Your task to perform on an android device: add a contact in the contacts app Image 0: 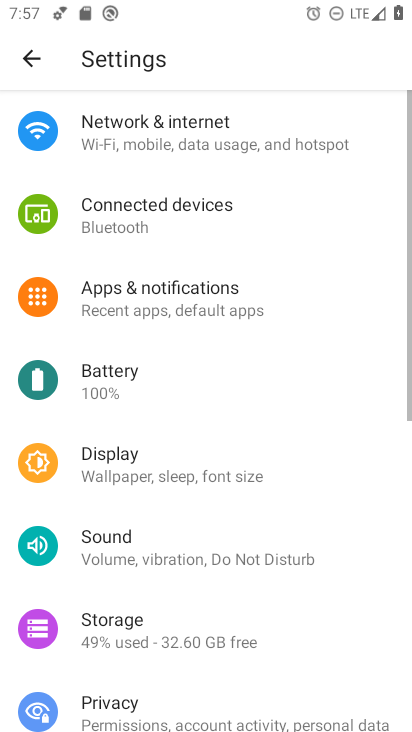
Step 0: press home button
Your task to perform on an android device: add a contact in the contacts app Image 1: 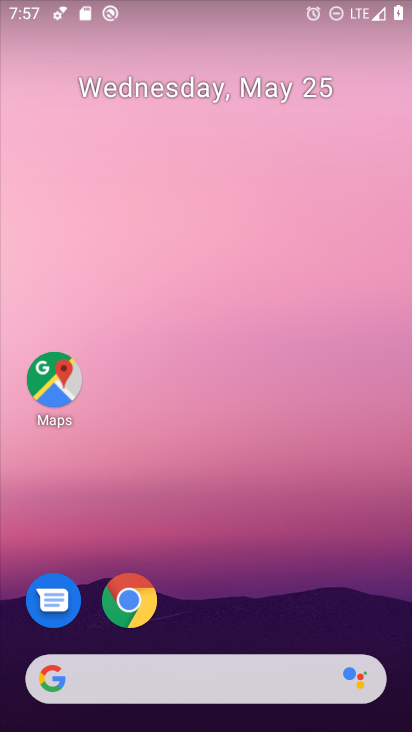
Step 1: drag from (307, 500) to (280, 63)
Your task to perform on an android device: add a contact in the contacts app Image 2: 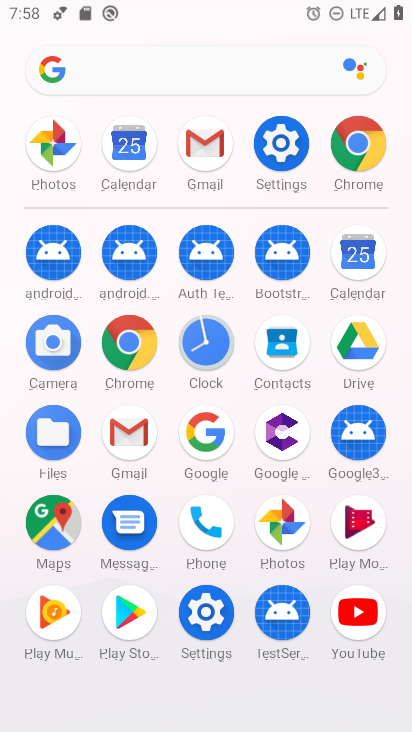
Step 2: click (291, 334)
Your task to perform on an android device: add a contact in the contacts app Image 3: 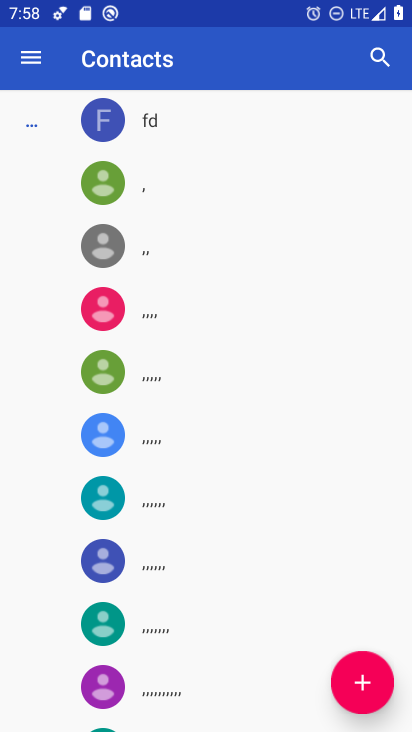
Step 3: click (341, 697)
Your task to perform on an android device: add a contact in the contacts app Image 4: 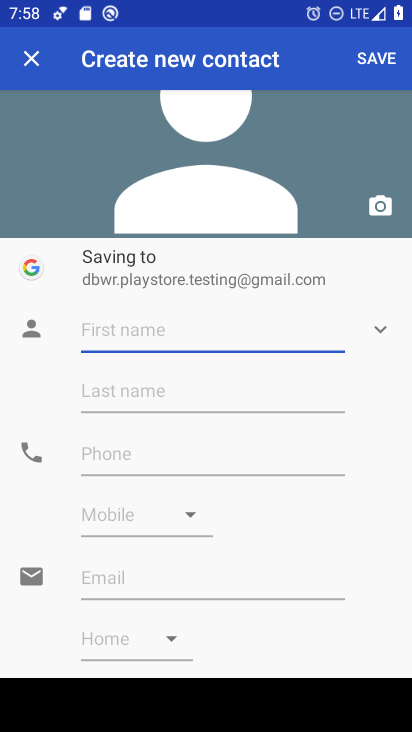
Step 4: type "erxc"
Your task to perform on an android device: add a contact in the contacts app Image 5: 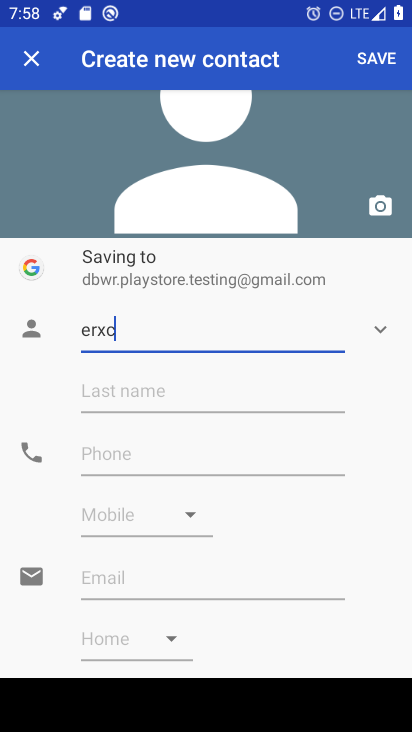
Step 5: type ""
Your task to perform on an android device: add a contact in the contacts app Image 6: 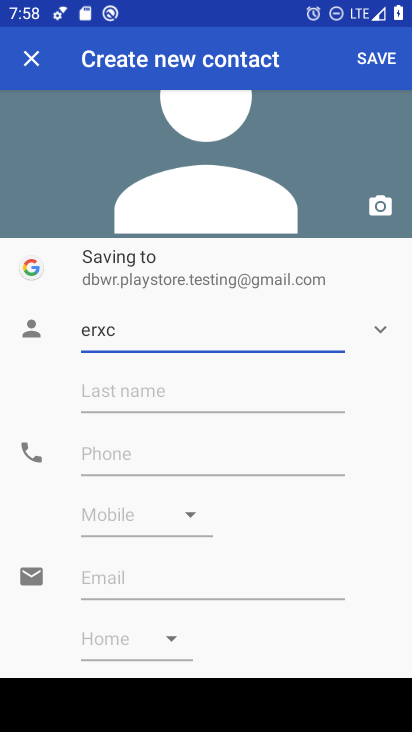
Step 6: click (377, 63)
Your task to perform on an android device: add a contact in the contacts app Image 7: 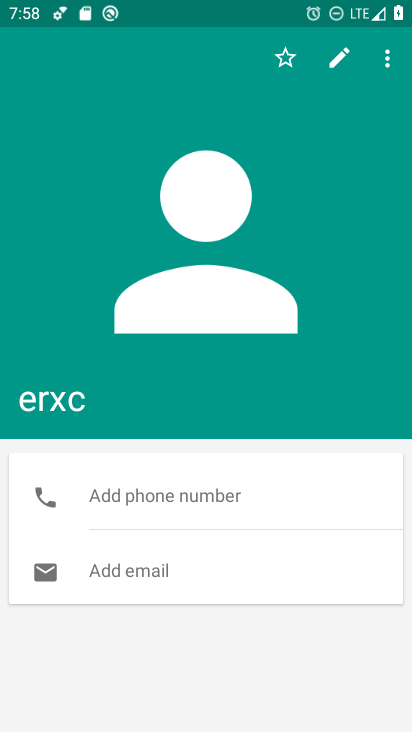
Step 7: task complete